Your task to perform on an android device: turn on showing notifications on the lock screen Image 0: 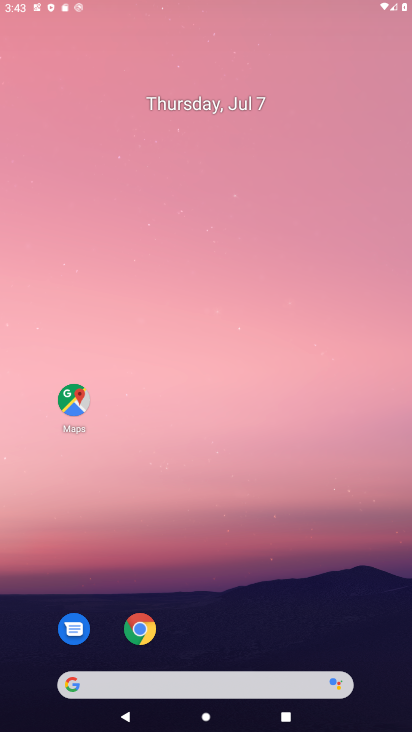
Step 0: drag from (228, 629) to (220, 354)
Your task to perform on an android device: turn on showing notifications on the lock screen Image 1: 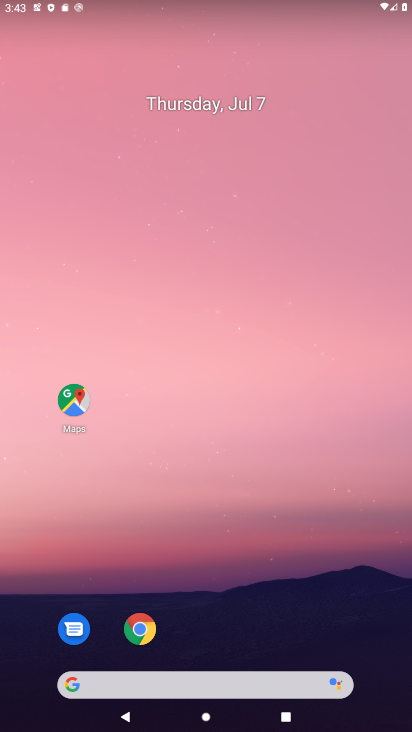
Step 1: drag from (255, 634) to (221, 254)
Your task to perform on an android device: turn on showing notifications on the lock screen Image 2: 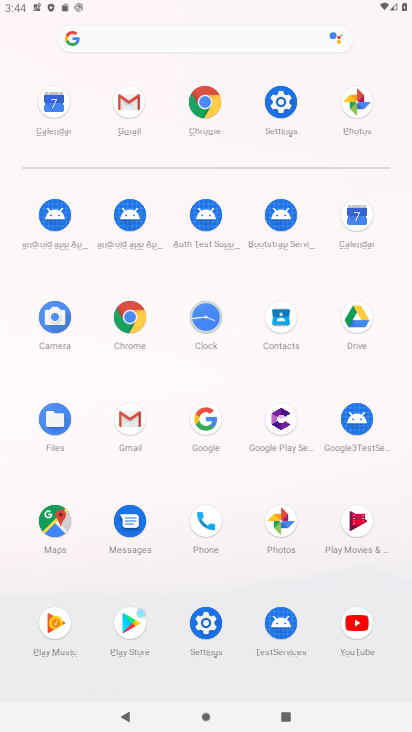
Step 2: click (140, 85)
Your task to perform on an android device: turn on showing notifications on the lock screen Image 3: 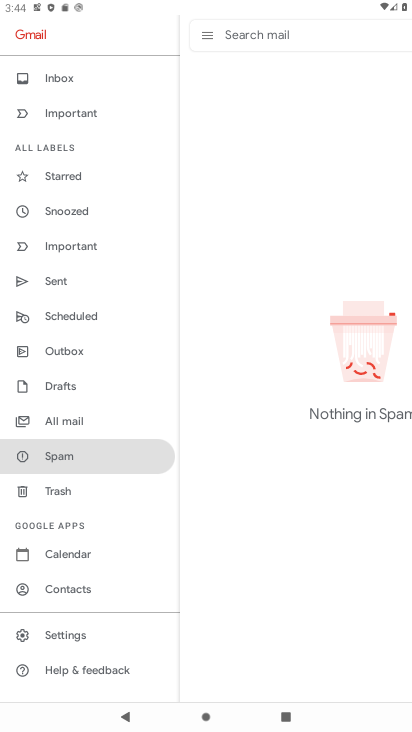
Step 3: press home button
Your task to perform on an android device: turn on showing notifications on the lock screen Image 4: 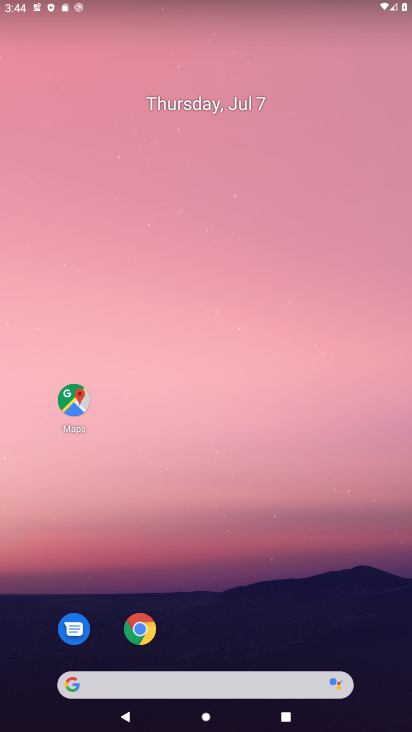
Step 4: drag from (219, 570) to (192, 315)
Your task to perform on an android device: turn on showing notifications on the lock screen Image 5: 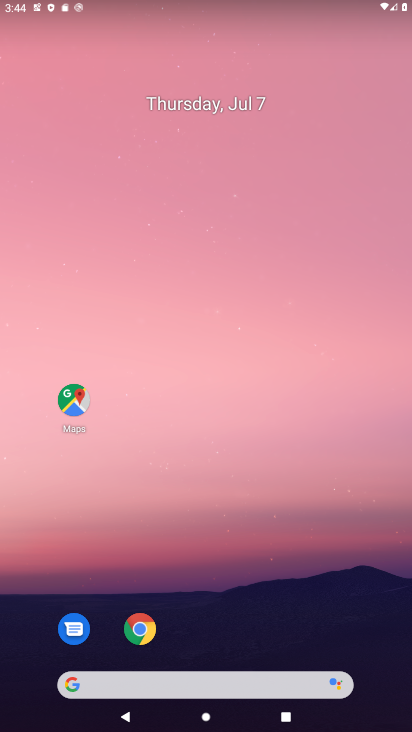
Step 5: drag from (249, 627) to (317, 308)
Your task to perform on an android device: turn on showing notifications on the lock screen Image 6: 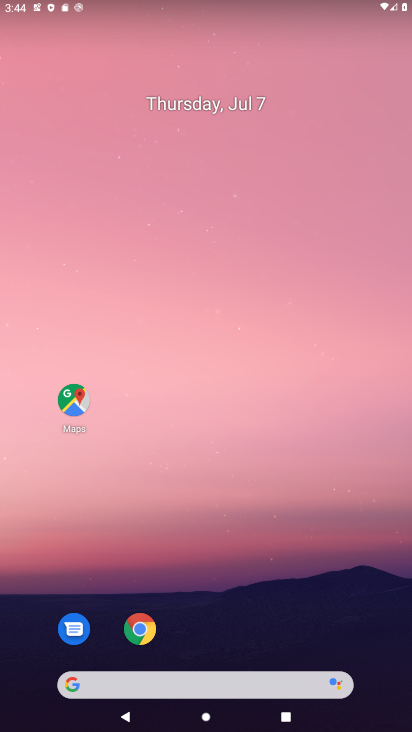
Step 6: drag from (242, 689) to (174, 216)
Your task to perform on an android device: turn on showing notifications on the lock screen Image 7: 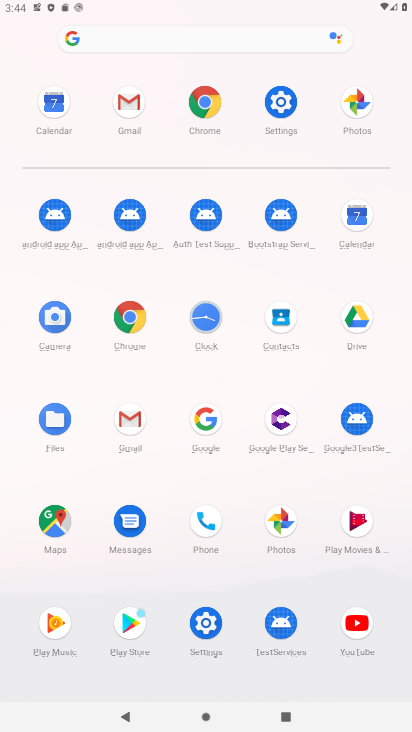
Step 7: click (287, 102)
Your task to perform on an android device: turn on showing notifications on the lock screen Image 8: 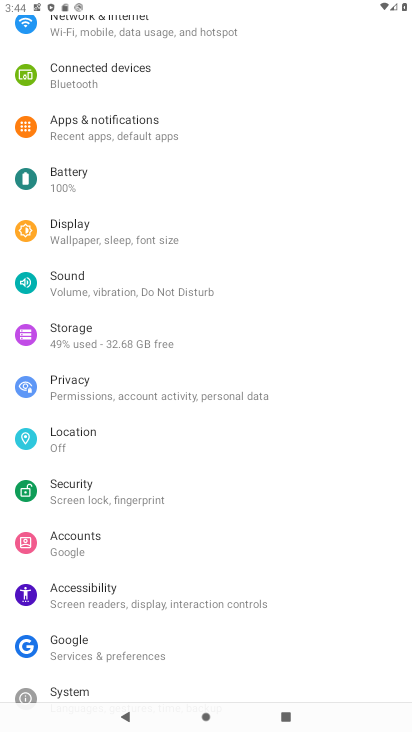
Step 8: drag from (158, 102) to (133, 593)
Your task to perform on an android device: turn on showing notifications on the lock screen Image 9: 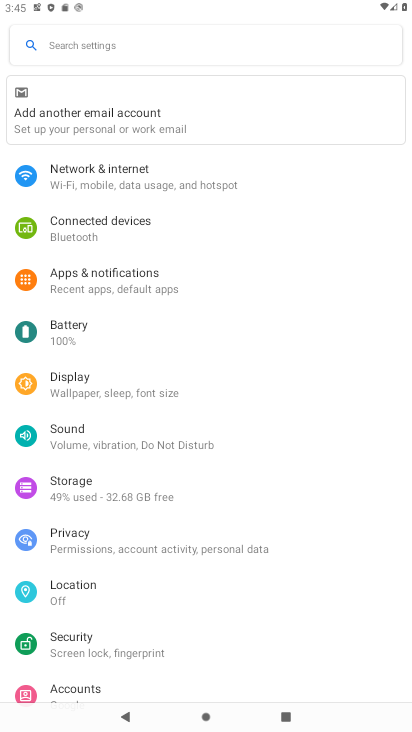
Step 9: click (111, 282)
Your task to perform on an android device: turn on showing notifications on the lock screen Image 10: 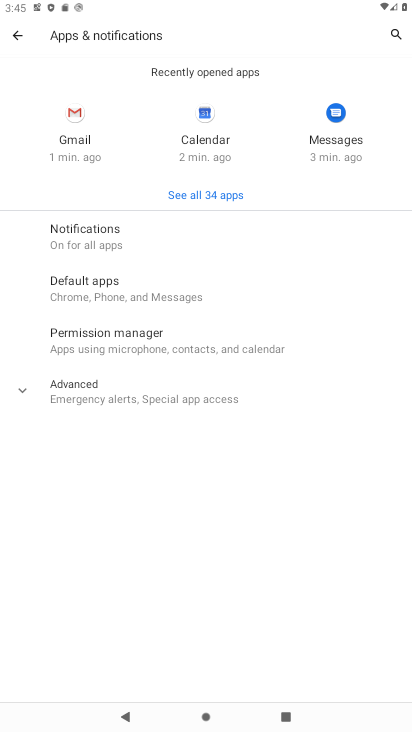
Step 10: click (161, 227)
Your task to perform on an android device: turn on showing notifications on the lock screen Image 11: 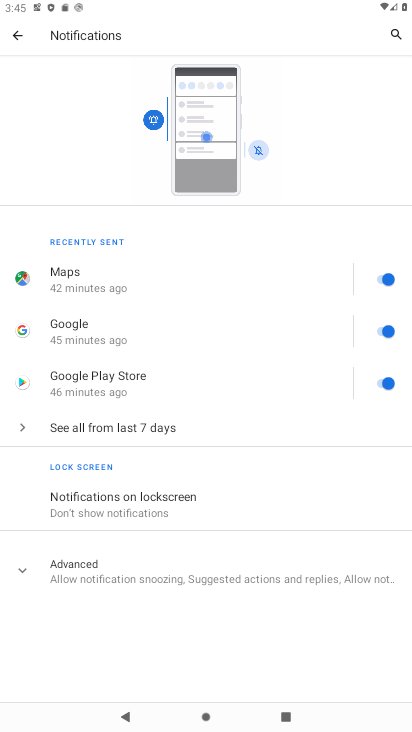
Step 11: click (245, 494)
Your task to perform on an android device: turn on showing notifications on the lock screen Image 12: 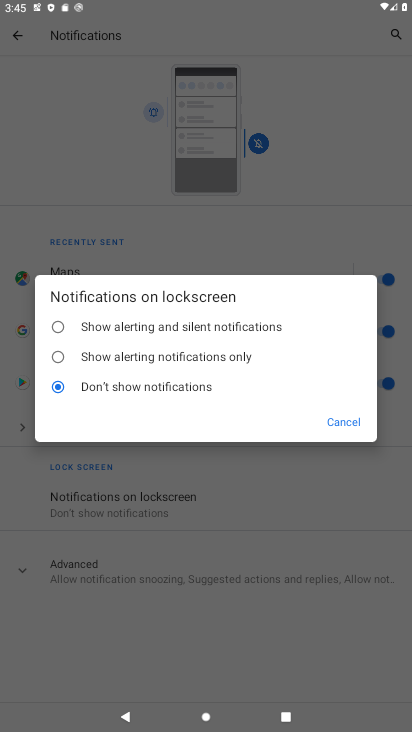
Step 12: click (114, 330)
Your task to perform on an android device: turn on showing notifications on the lock screen Image 13: 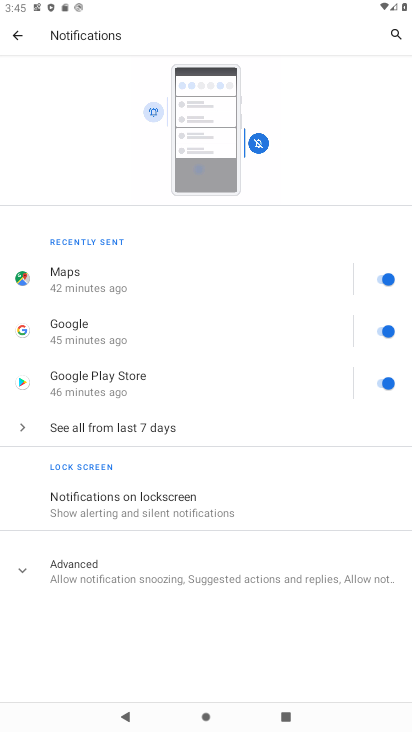
Step 13: task complete